Your task to perform on an android device: change alarm snooze length Image 0: 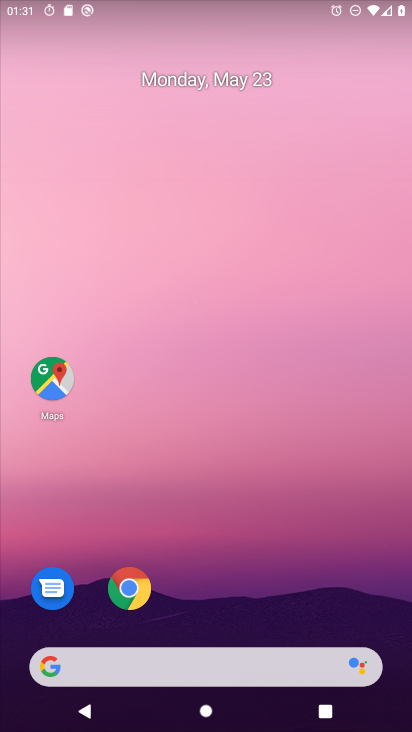
Step 0: drag from (269, 674) to (169, 100)
Your task to perform on an android device: change alarm snooze length Image 1: 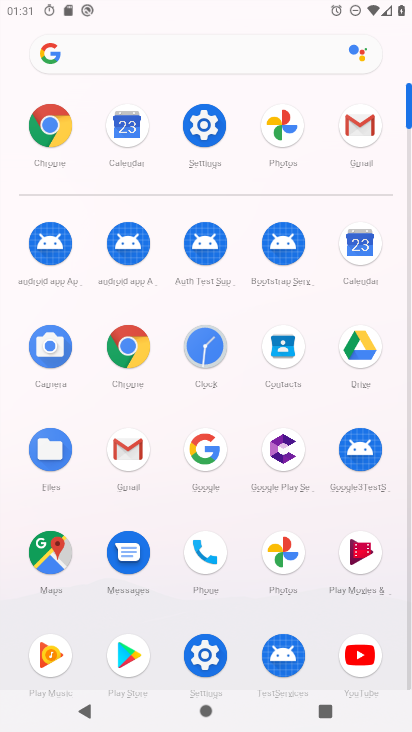
Step 1: click (167, 99)
Your task to perform on an android device: change alarm snooze length Image 2: 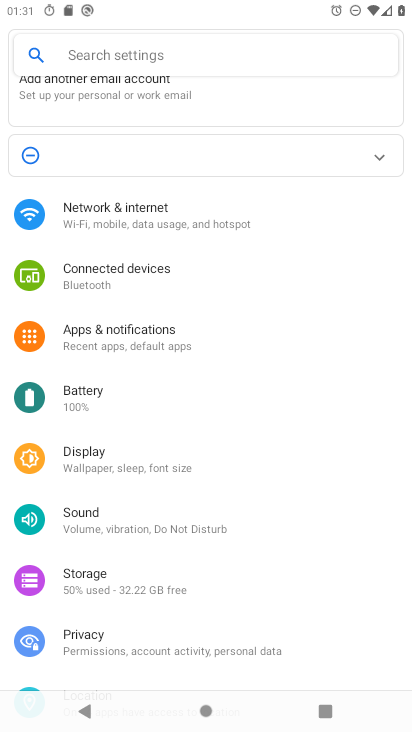
Step 2: press home button
Your task to perform on an android device: change alarm snooze length Image 3: 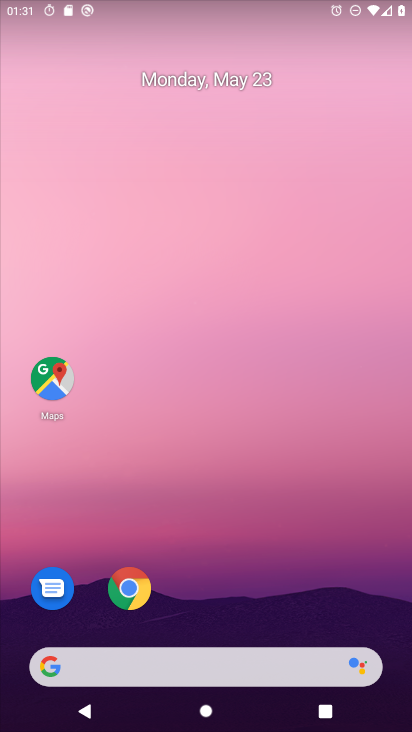
Step 3: drag from (251, 681) to (185, 34)
Your task to perform on an android device: change alarm snooze length Image 4: 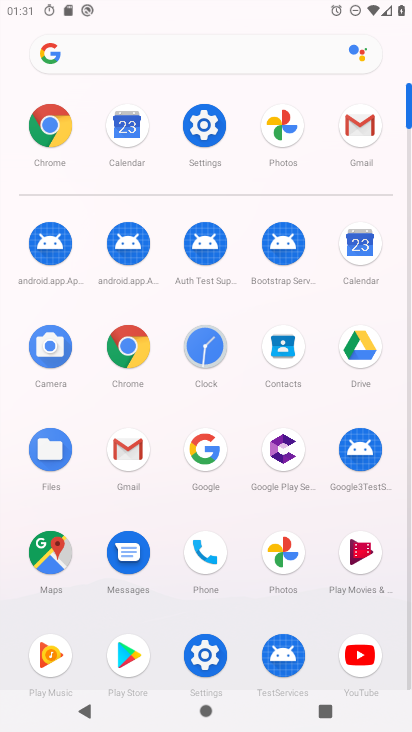
Step 4: click (211, 344)
Your task to perform on an android device: change alarm snooze length Image 5: 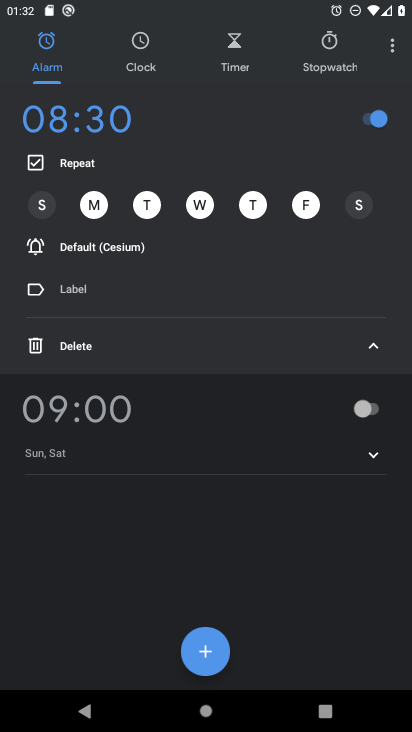
Step 5: click (389, 54)
Your task to perform on an android device: change alarm snooze length Image 6: 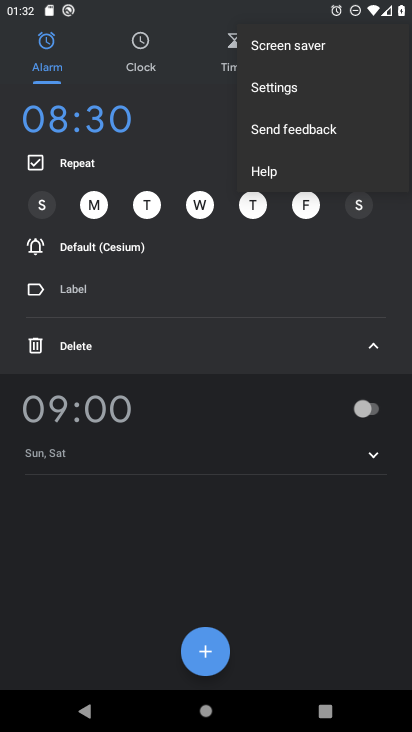
Step 6: click (288, 90)
Your task to perform on an android device: change alarm snooze length Image 7: 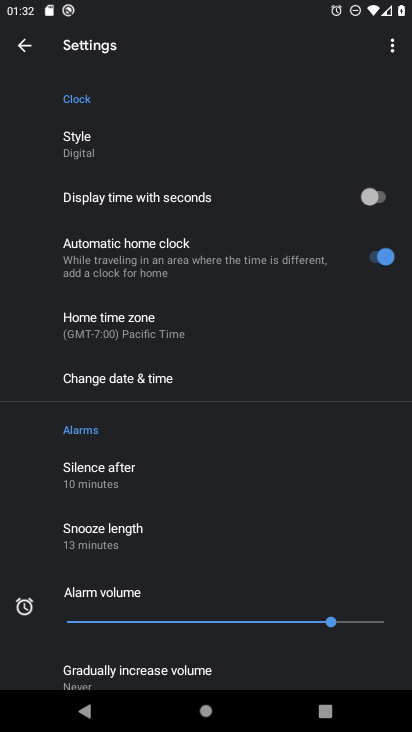
Step 7: drag from (236, 545) to (208, 420)
Your task to perform on an android device: change alarm snooze length Image 8: 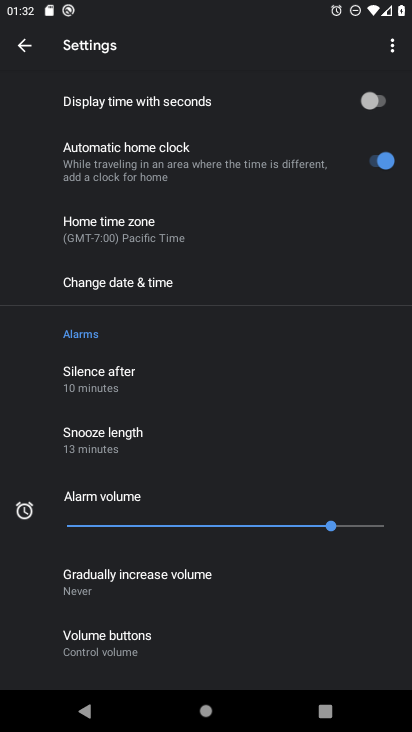
Step 8: drag from (139, 379) to (140, 339)
Your task to perform on an android device: change alarm snooze length Image 9: 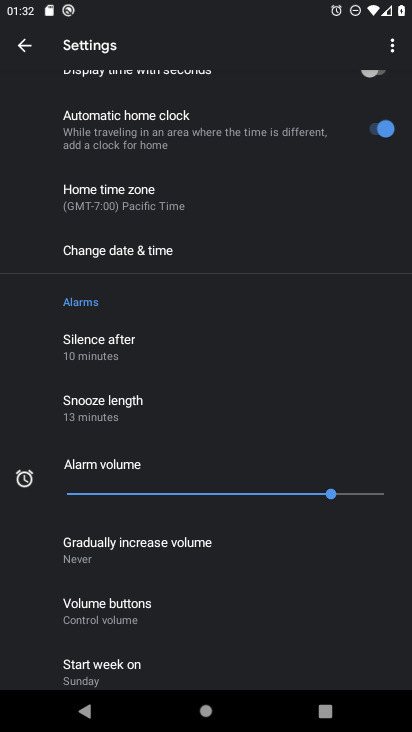
Step 9: click (120, 406)
Your task to perform on an android device: change alarm snooze length Image 10: 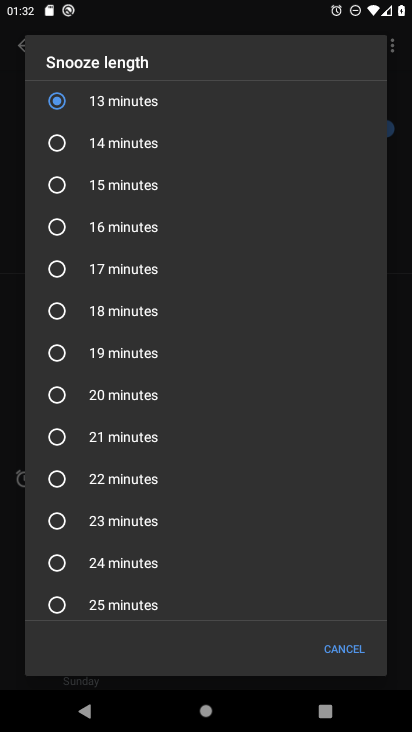
Step 10: click (97, 484)
Your task to perform on an android device: change alarm snooze length Image 11: 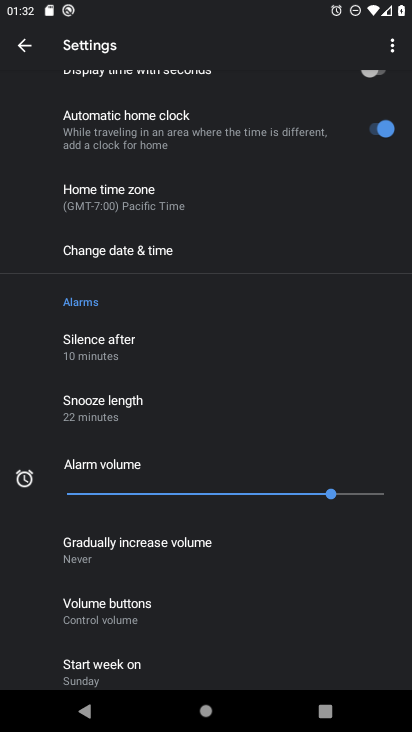
Step 11: task complete